Your task to perform on an android device: Go to display settings Image 0: 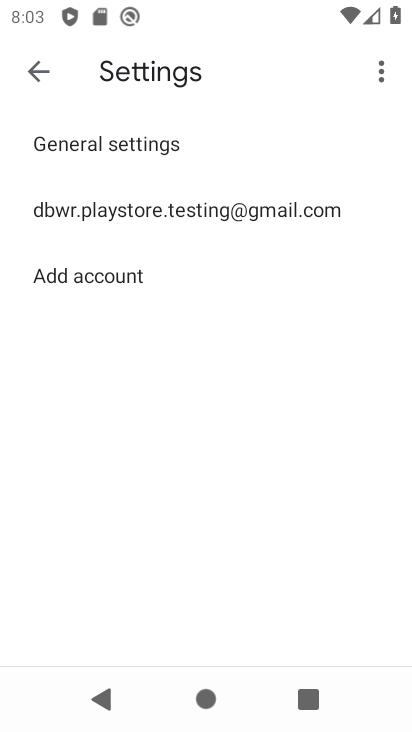
Step 0: press home button
Your task to perform on an android device: Go to display settings Image 1: 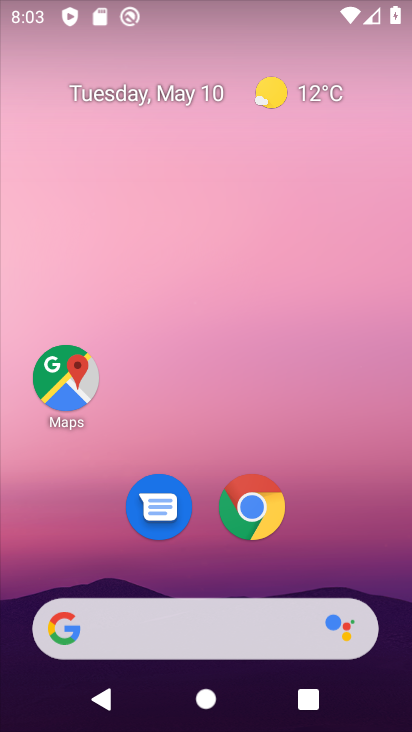
Step 1: drag from (219, 597) to (278, 68)
Your task to perform on an android device: Go to display settings Image 2: 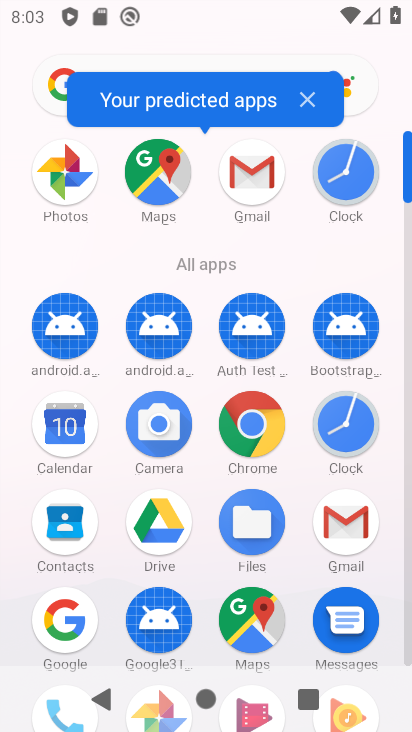
Step 2: drag from (209, 570) to (266, 291)
Your task to perform on an android device: Go to display settings Image 3: 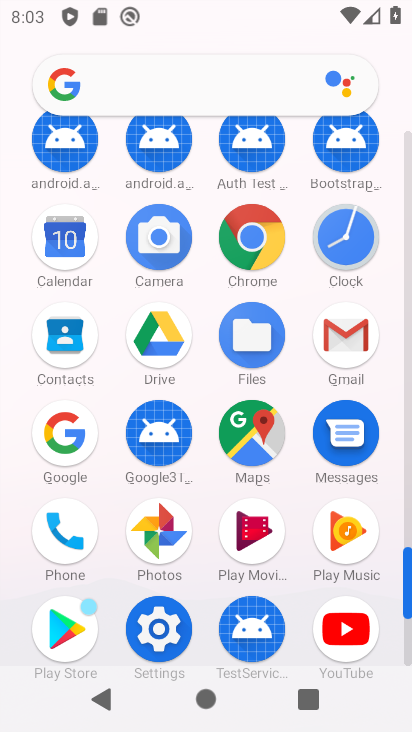
Step 3: click (171, 637)
Your task to perform on an android device: Go to display settings Image 4: 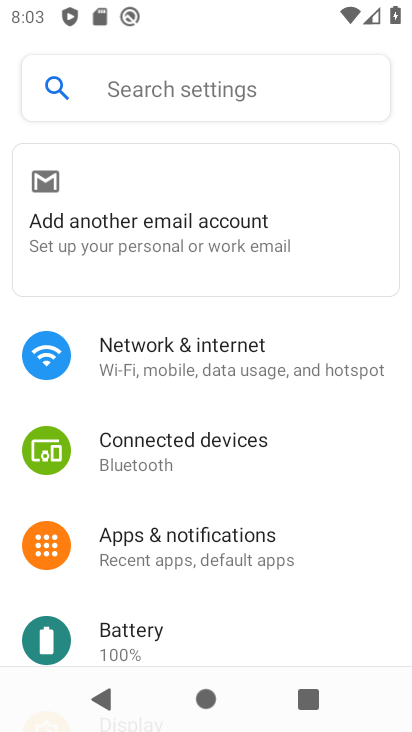
Step 4: drag from (203, 597) to (303, 278)
Your task to perform on an android device: Go to display settings Image 5: 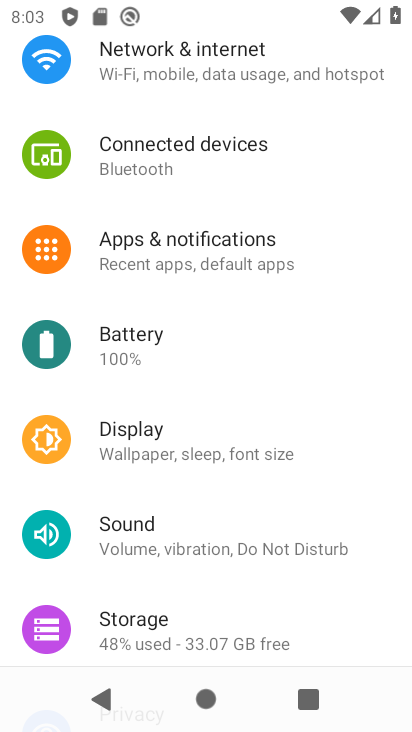
Step 5: click (210, 443)
Your task to perform on an android device: Go to display settings Image 6: 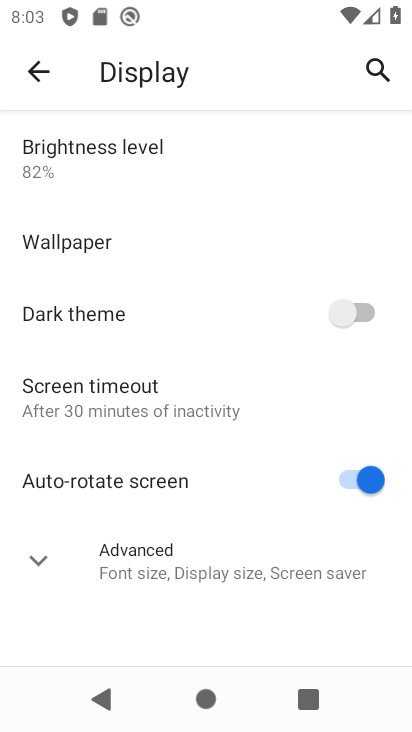
Step 6: task complete